Your task to perform on an android device: open sync settings in chrome Image 0: 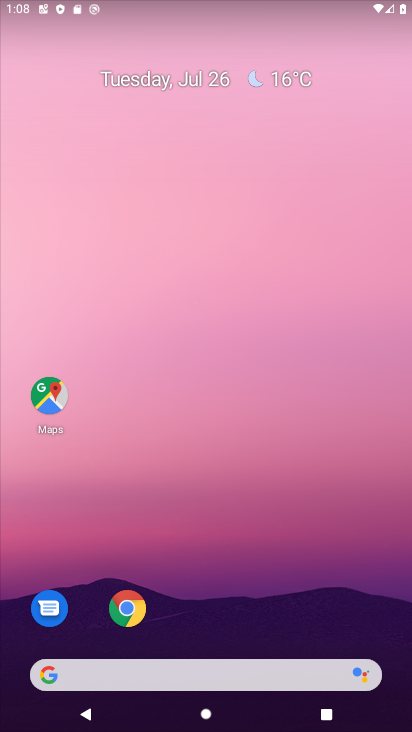
Step 0: click (137, 606)
Your task to perform on an android device: open sync settings in chrome Image 1: 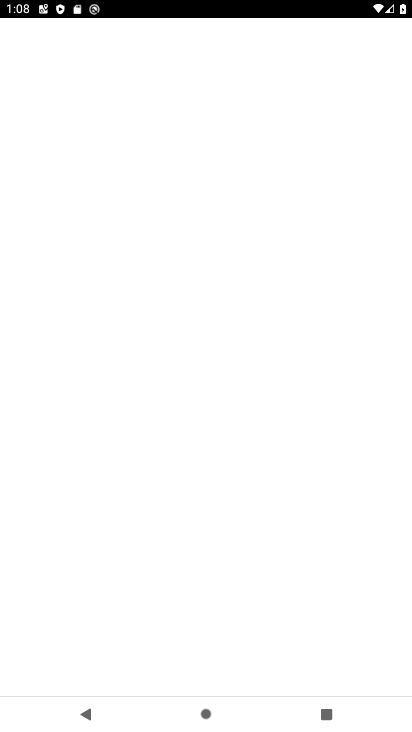
Step 1: task complete